Your task to perform on an android device: Find coffee shops on Maps Image 0: 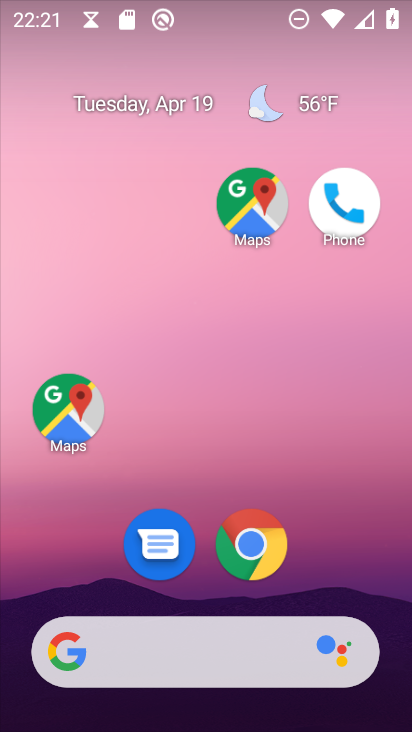
Step 0: drag from (156, 647) to (346, 50)
Your task to perform on an android device: Find coffee shops on Maps Image 1: 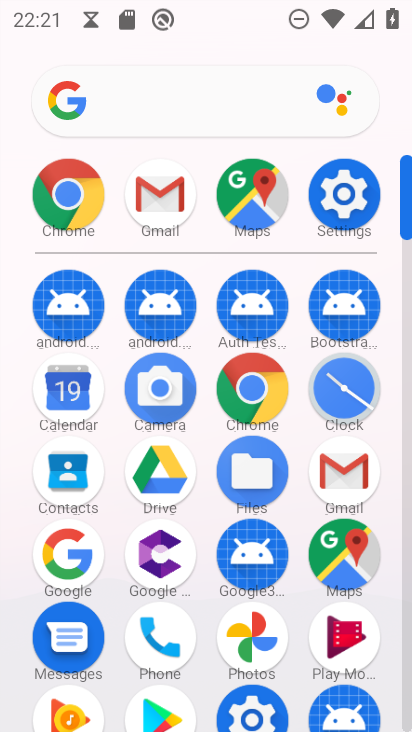
Step 1: click (266, 208)
Your task to perform on an android device: Find coffee shops on Maps Image 2: 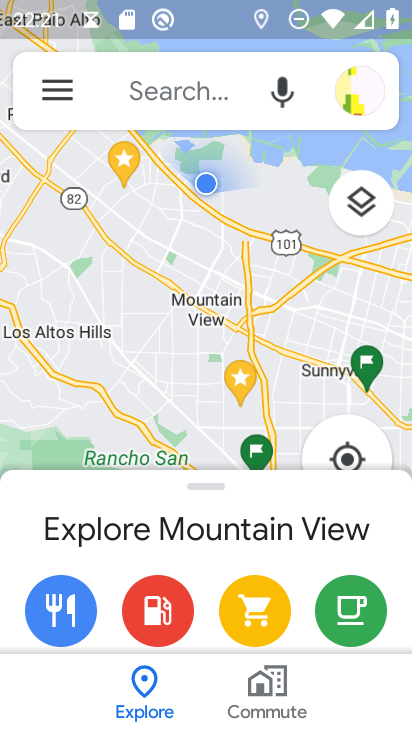
Step 2: click (162, 98)
Your task to perform on an android device: Find coffee shops on Maps Image 3: 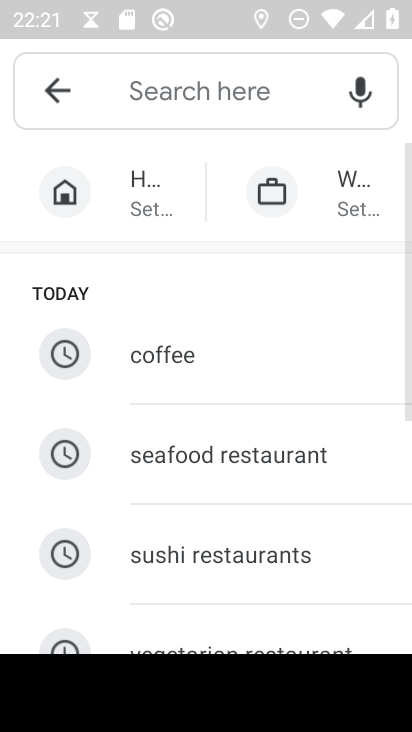
Step 3: click (180, 355)
Your task to perform on an android device: Find coffee shops on Maps Image 4: 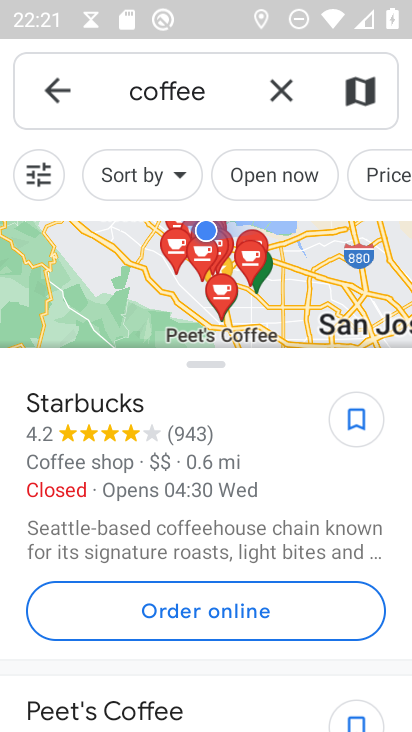
Step 4: task complete